Your task to perform on an android device: What is the recent news? Image 0: 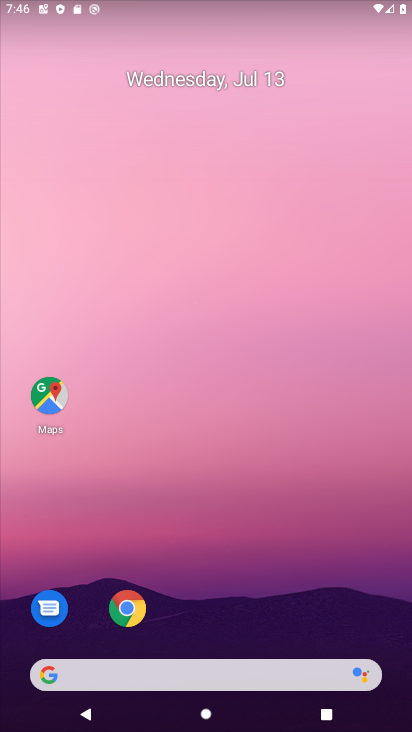
Step 0: drag from (202, 648) to (199, 69)
Your task to perform on an android device: What is the recent news? Image 1: 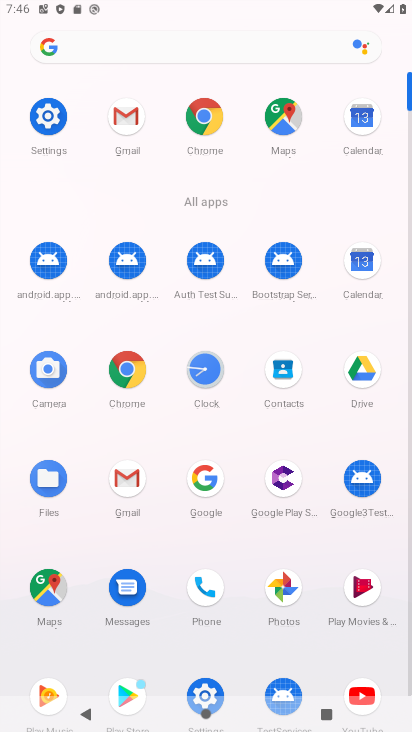
Step 1: click (202, 483)
Your task to perform on an android device: What is the recent news? Image 2: 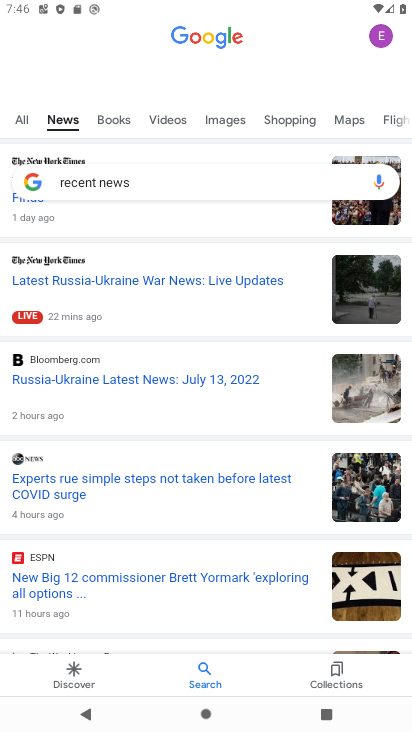
Step 2: drag from (112, 238) to (90, 612)
Your task to perform on an android device: What is the recent news? Image 3: 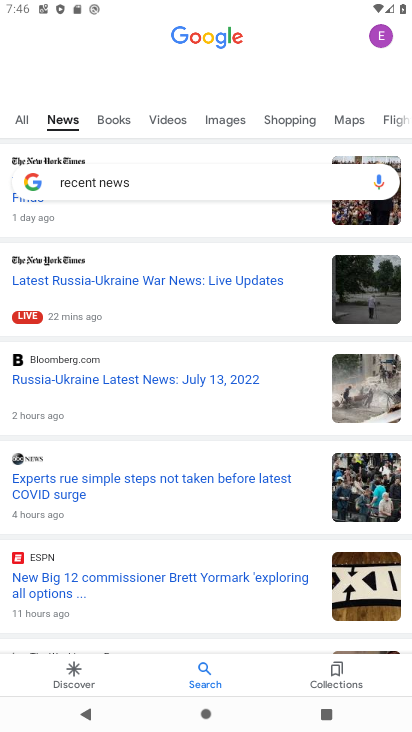
Step 3: drag from (110, 296) to (103, 655)
Your task to perform on an android device: What is the recent news? Image 4: 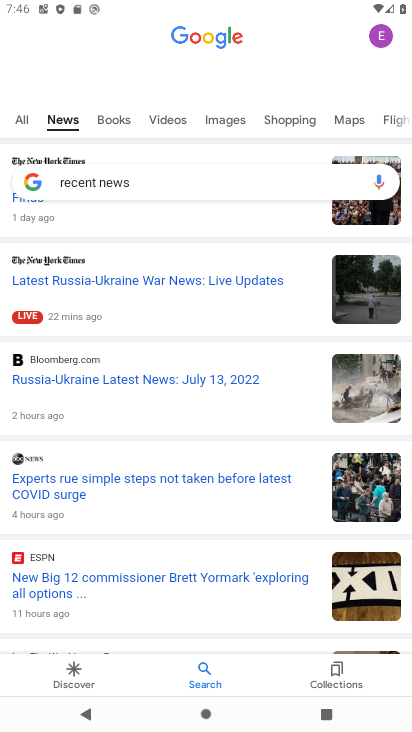
Step 4: drag from (94, 319) to (85, 723)
Your task to perform on an android device: What is the recent news? Image 5: 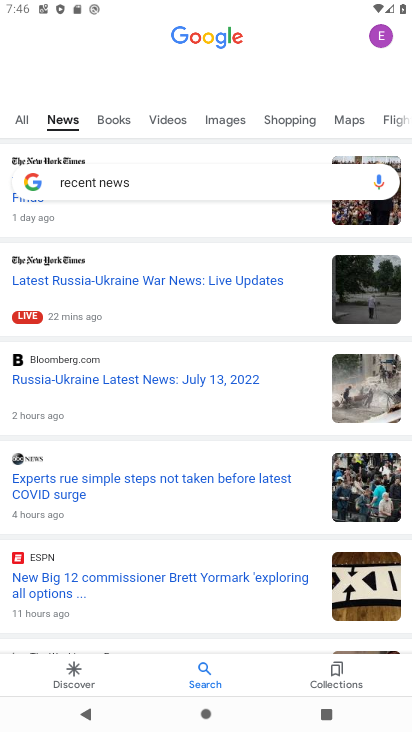
Step 5: drag from (111, 313) to (137, 654)
Your task to perform on an android device: What is the recent news? Image 6: 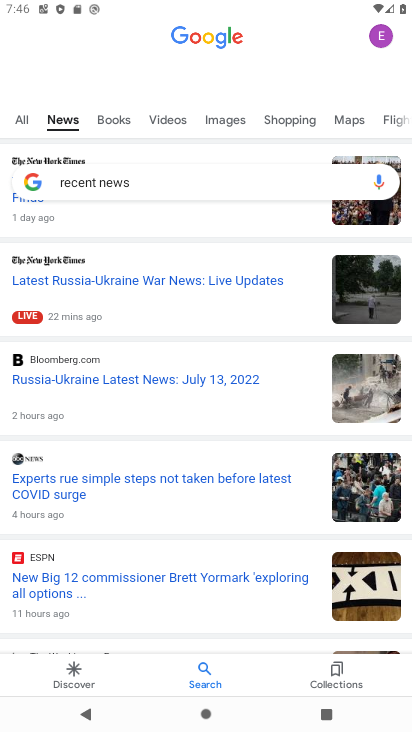
Step 6: drag from (172, 230) to (169, 604)
Your task to perform on an android device: What is the recent news? Image 7: 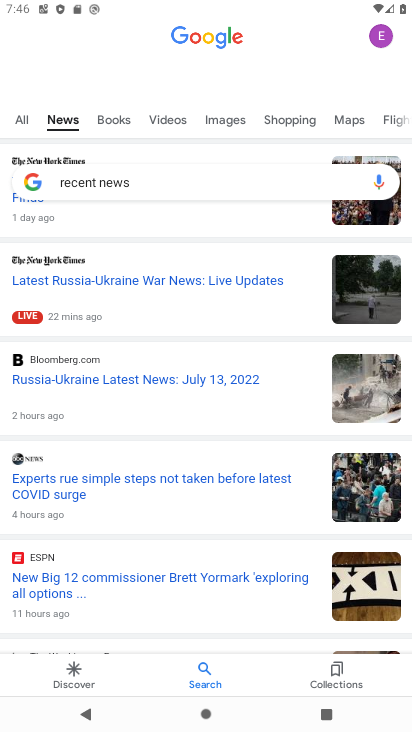
Step 7: click (64, 124)
Your task to perform on an android device: What is the recent news? Image 8: 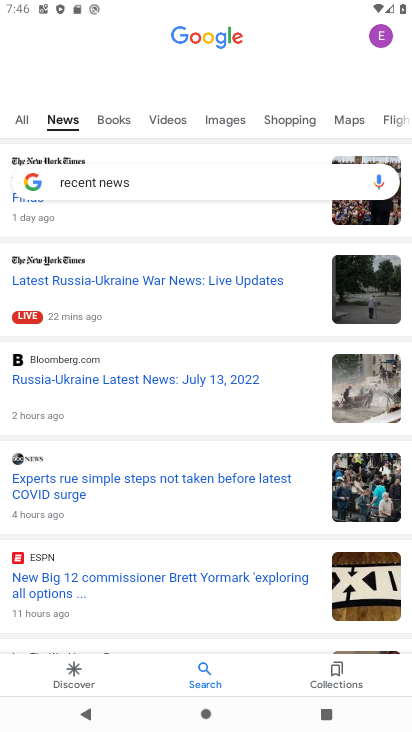
Step 8: task complete